Your task to perform on an android device: install app "Lyft - Rideshare, Bikes, Scooters & Transit" Image 0: 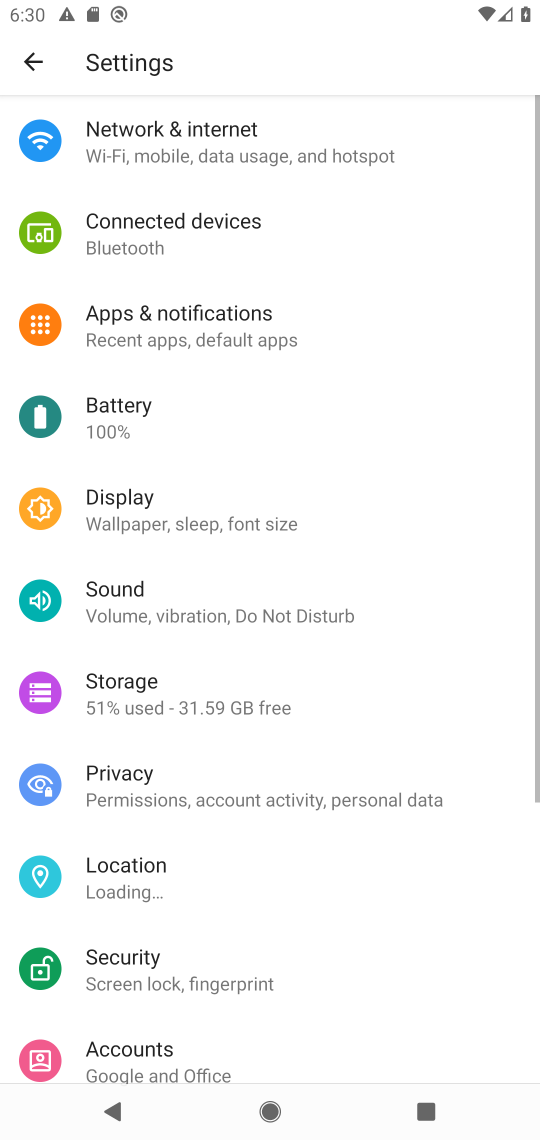
Step 0: press home button
Your task to perform on an android device: install app "Lyft - Rideshare, Bikes, Scooters & Transit" Image 1: 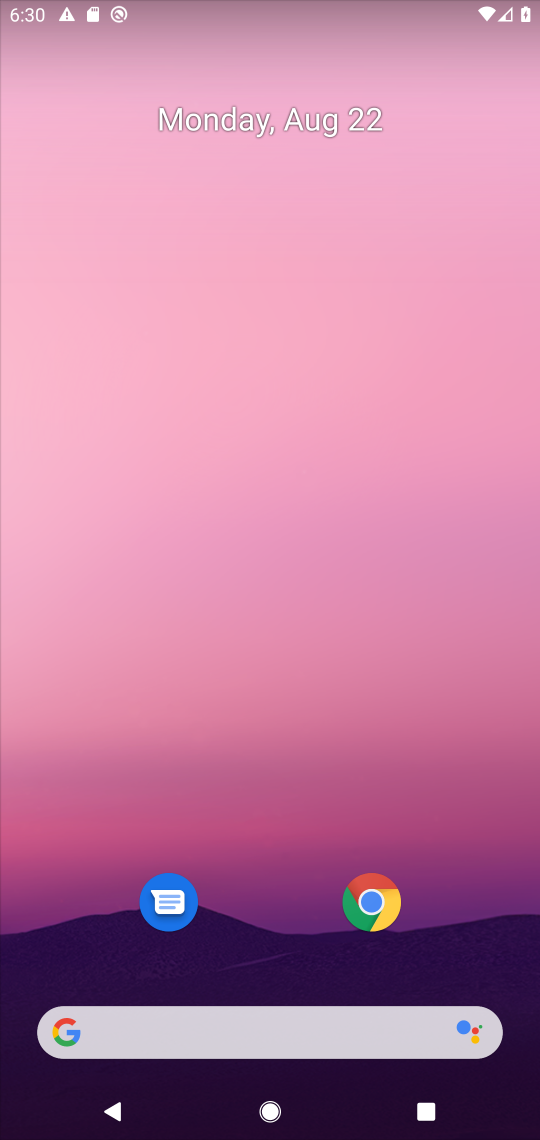
Step 1: drag from (243, 968) to (229, 278)
Your task to perform on an android device: install app "Lyft - Rideshare, Bikes, Scooters & Transit" Image 2: 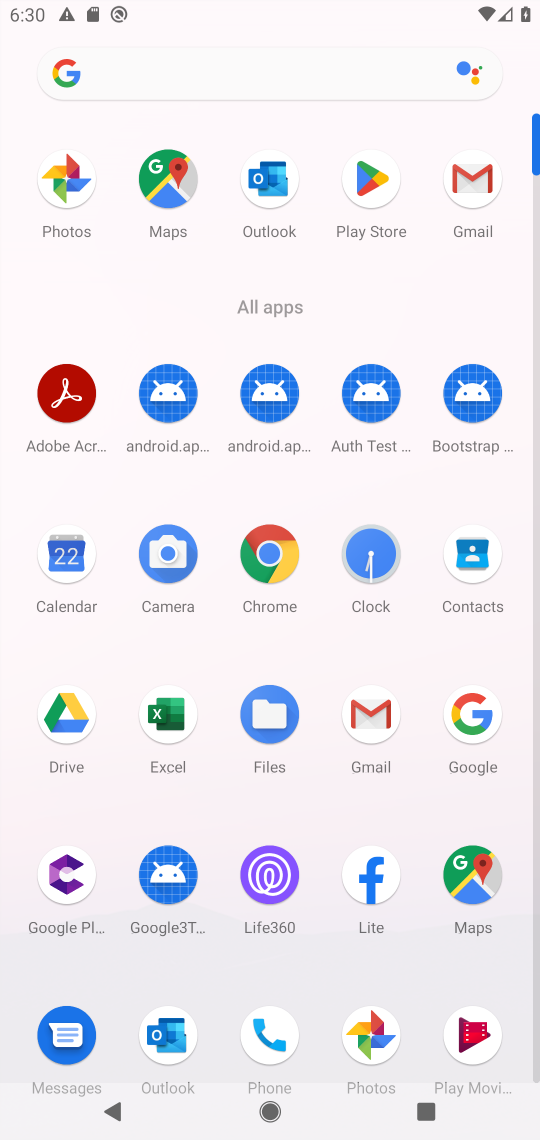
Step 2: click (373, 188)
Your task to perform on an android device: install app "Lyft - Rideshare, Bikes, Scooters & Transit" Image 3: 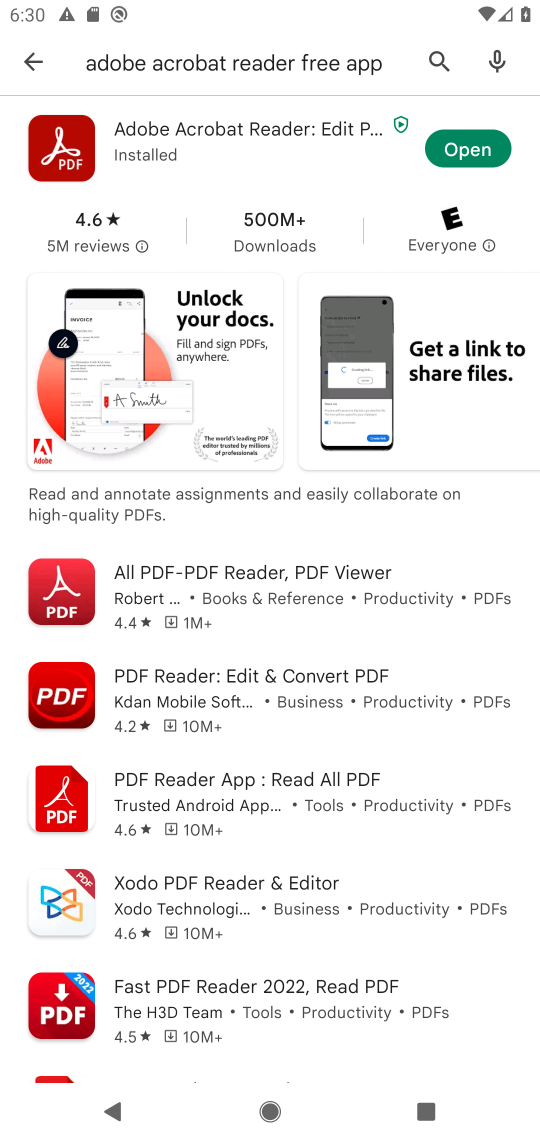
Step 3: click (30, 67)
Your task to perform on an android device: install app "Lyft - Rideshare, Bikes, Scooters & Transit" Image 4: 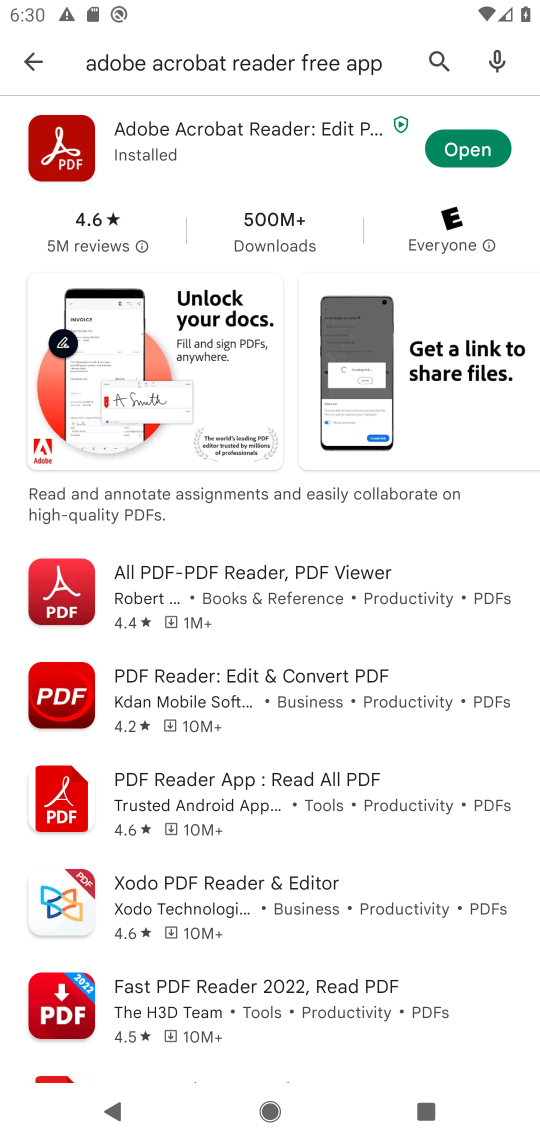
Step 4: click (39, 65)
Your task to perform on an android device: install app "Lyft - Rideshare, Bikes, Scooters & Transit" Image 5: 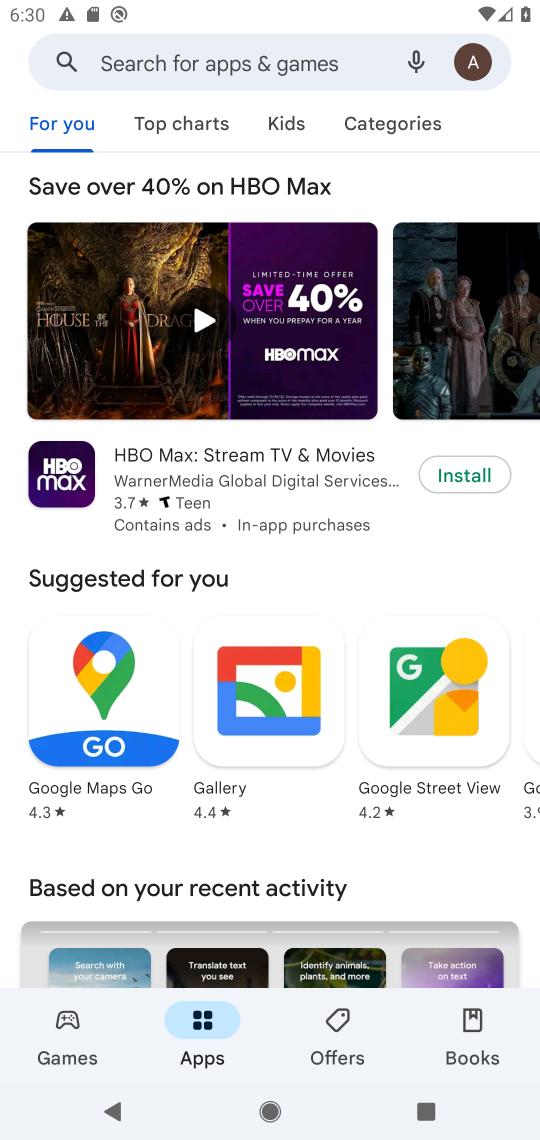
Step 5: click (261, 47)
Your task to perform on an android device: install app "Lyft - Rideshare, Bikes, Scooters & Transit" Image 6: 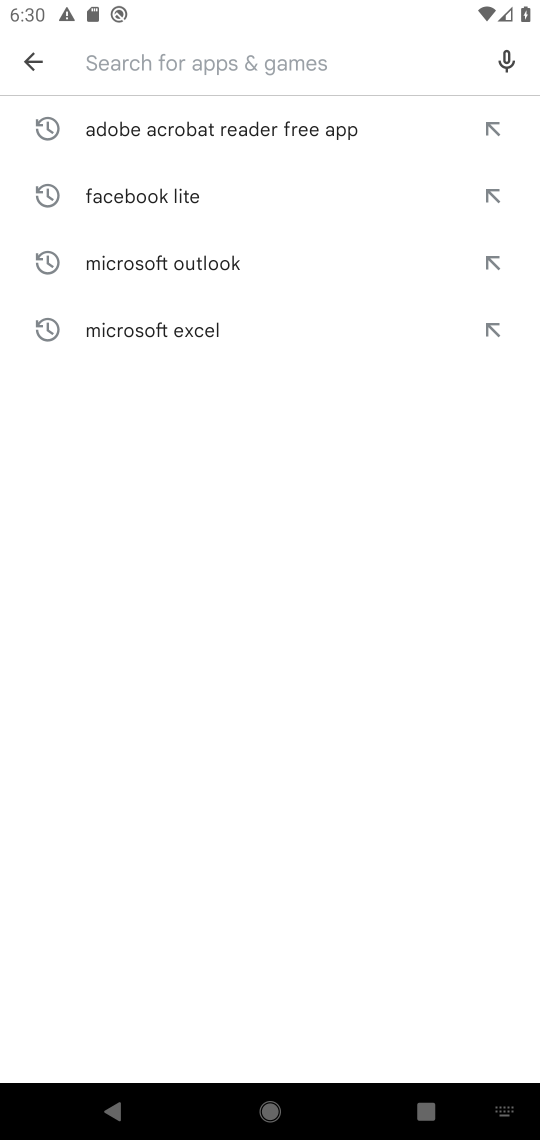
Step 6: type "Lyft"
Your task to perform on an android device: install app "Lyft - Rideshare, Bikes, Scooters & Transit" Image 7: 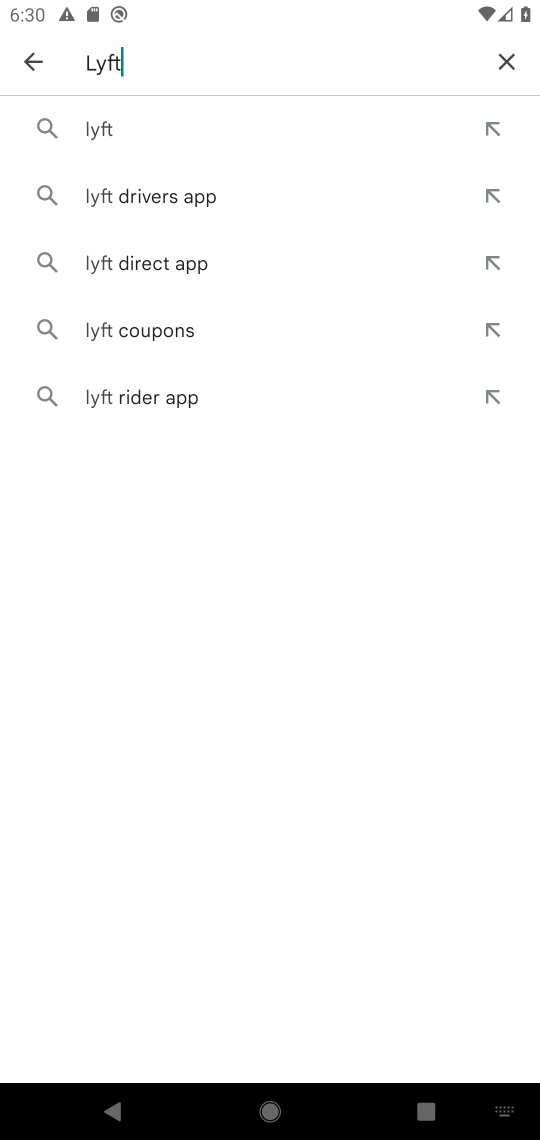
Step 7: click (88, 124)
Your task to perform on an android device: install app "Lyft - Rideshare, Bikes, Scooters & Transit" Image 8: 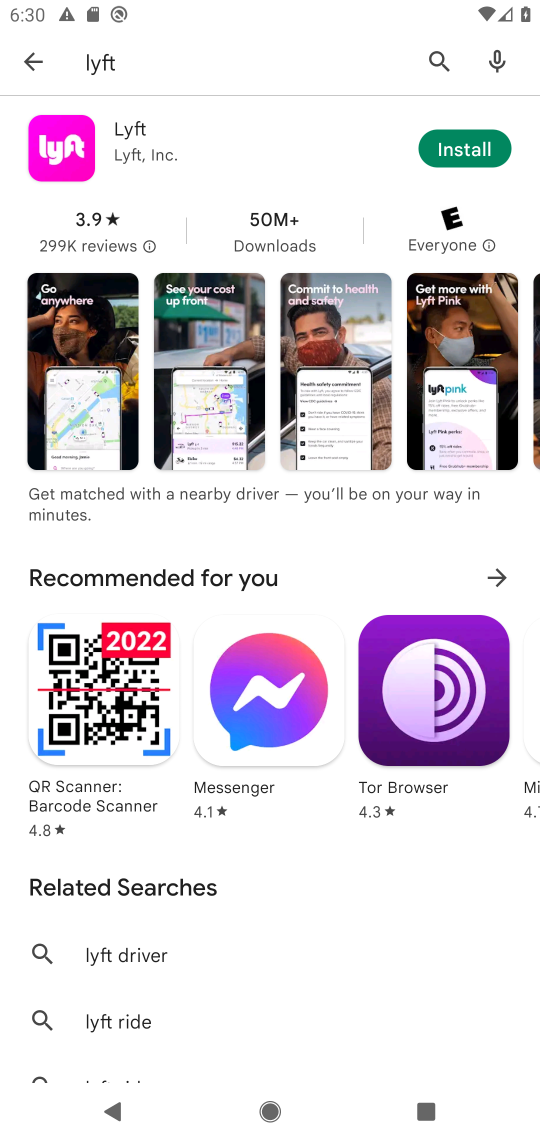
Step 8: click (465, 132)
Your task to perform on an android device: install app "Lyft - Rideshare, Bikes, Scooters & Transit" Image 9: 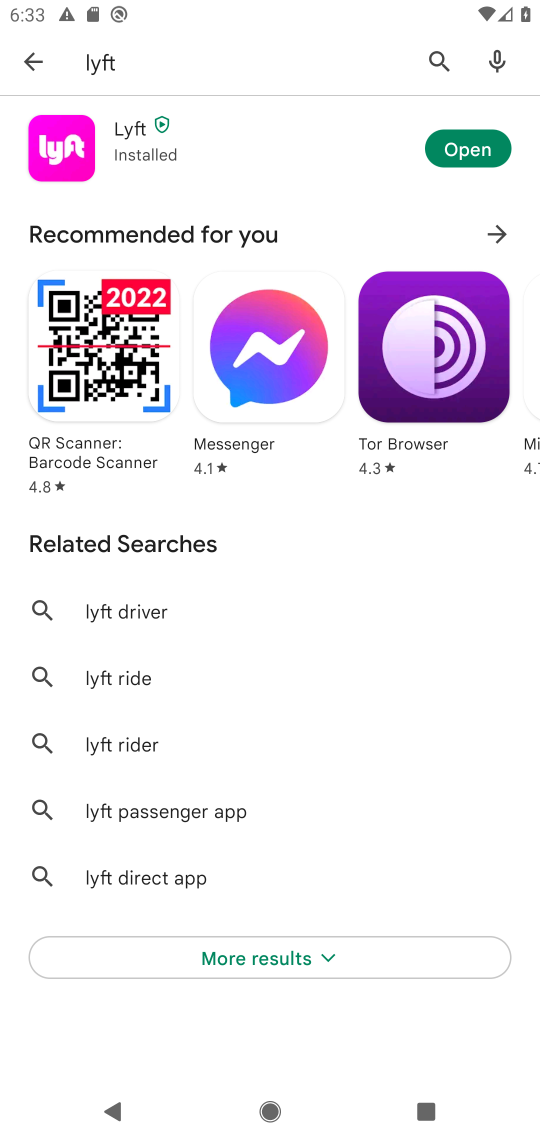
Step 9: click (465, 149)
Your task to perform on an android device: install app "Lyft - Rideshare, Bikes, Scooters & Transit" Image 10: 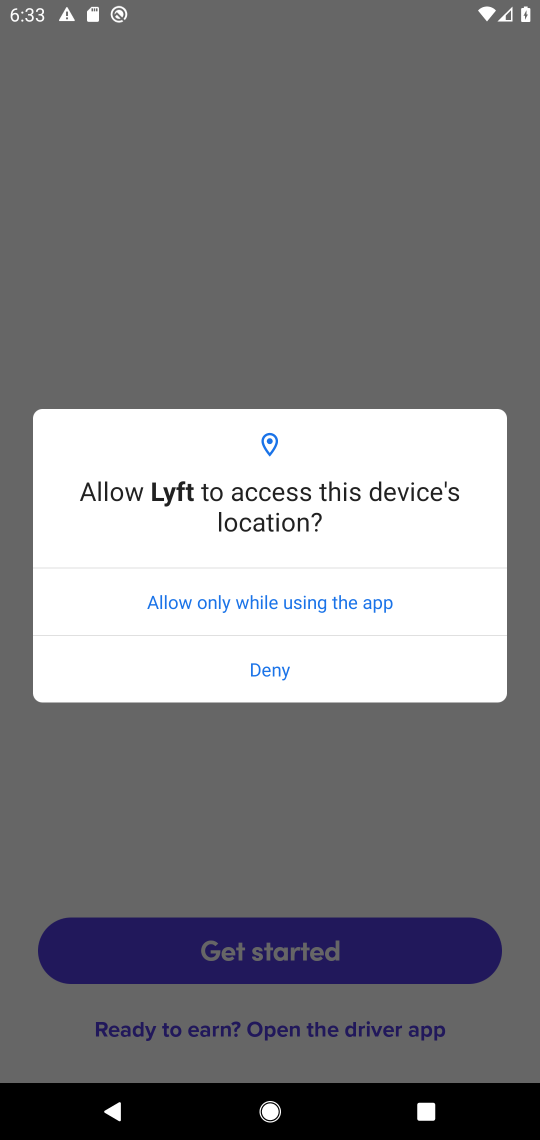
Step 10: task complete